Your task to perform on an android device: check data usage Image 0: 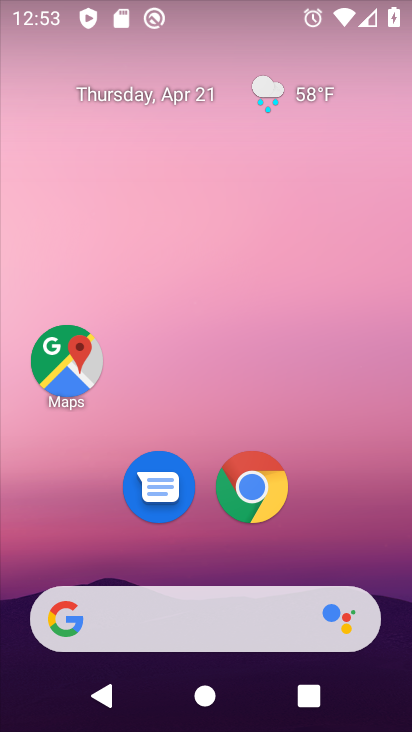
Step 0: drag from (332, 546) to (322, 15)
Your task to perform on an android device: check data usage Image 1: 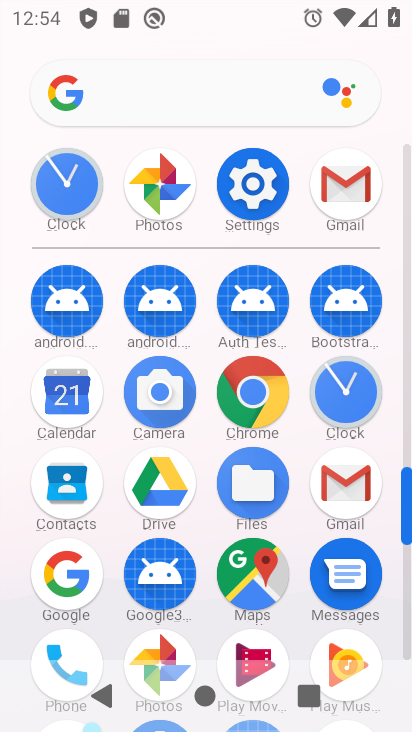
Step 1: click (252, 191)
Your task to perform on an android device: check data usage Image 2: 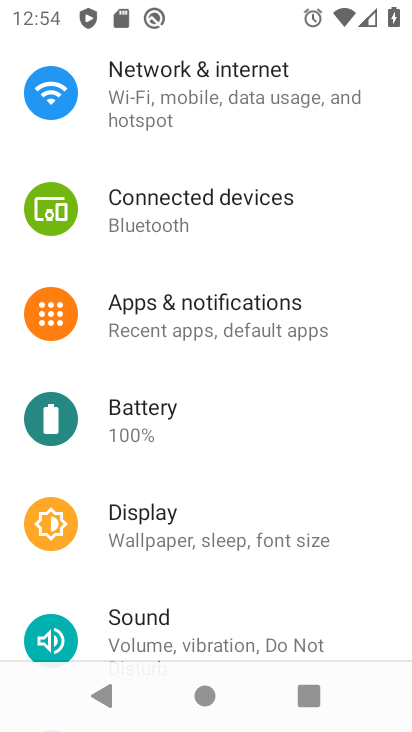
Step 2: click (188, 101)
Your task to perform on an android device: check data usage Image 3: 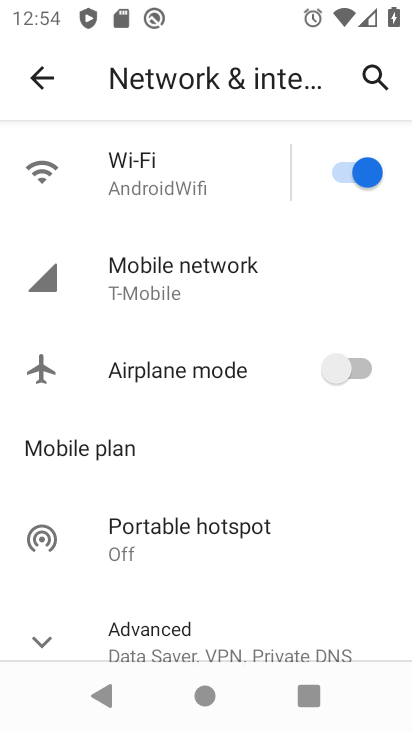
Step 3: click (155, 281)
Your task to perform on an android device: check data usage Image 4: 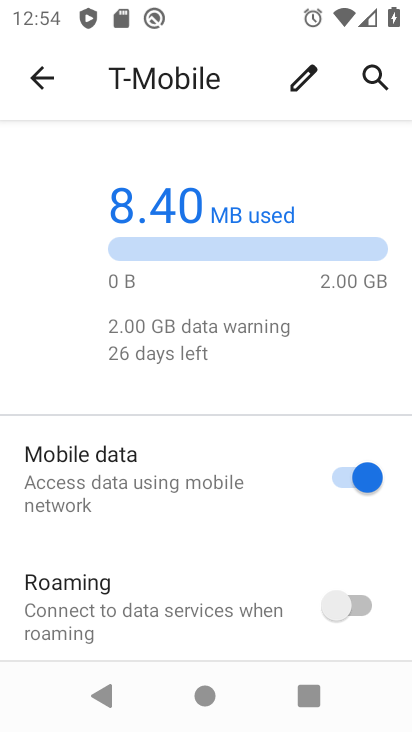
Step 4: drag from (145, 509) to (153, 273)
Your task to perform on an android device: check data usage Image 5: 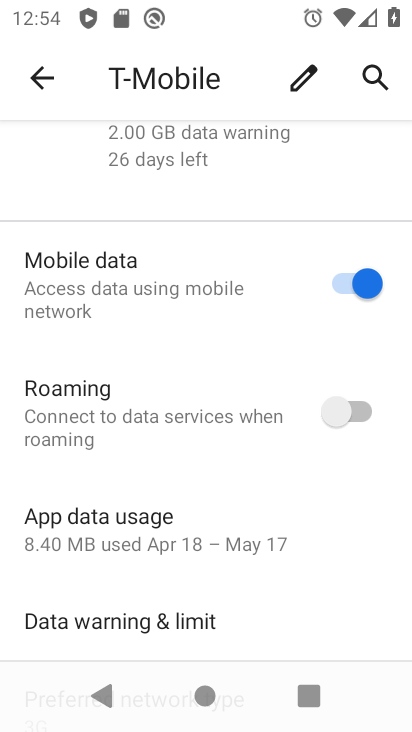
Step 5: click (119, 524)
Your task to perform on an android device: check data usage Image 6: 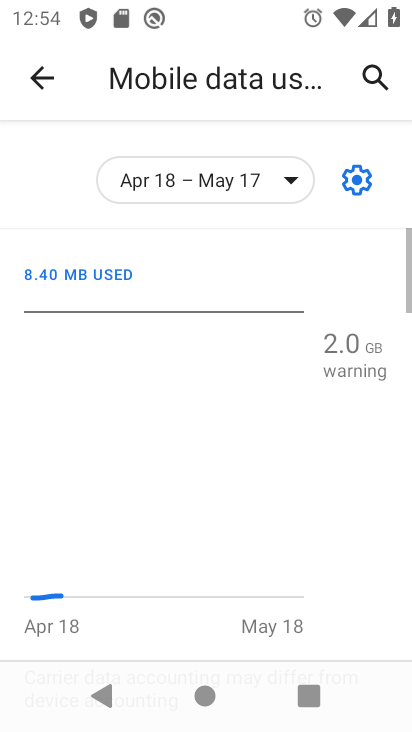
Step 6: task complete